Your task to perform on an android device: Turn off the flashlight Image 0: 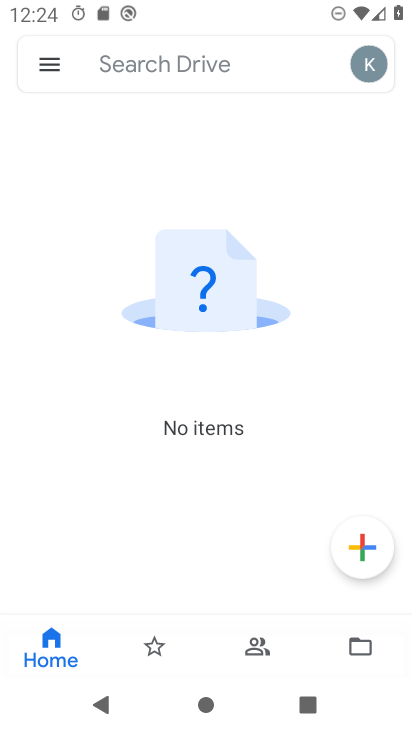
Step 0: press home button
Your task to perform on an android device: Turn off the flashlight Image 1: 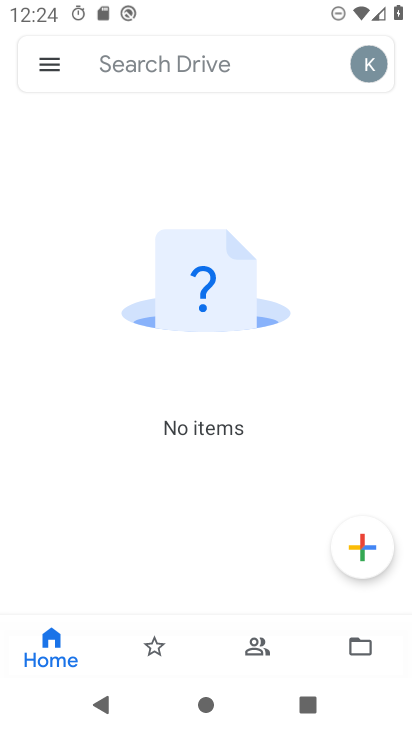
Step 1: press home button
Your task to perform on an android device: Turn off the flashlight Image 2: 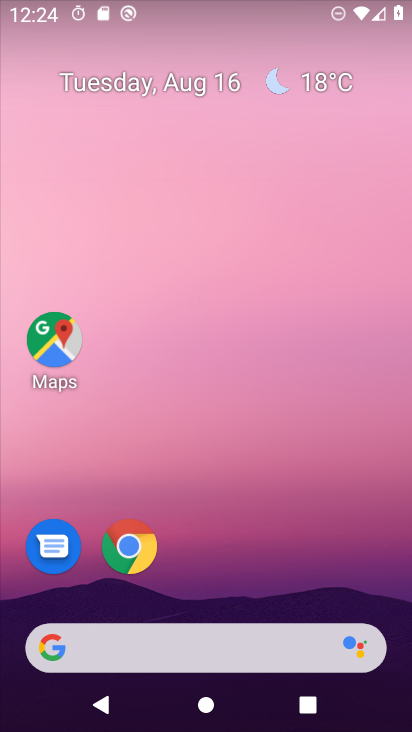
Step 2: drag from (178, 375) to (181, 8)
Your task to perform on an android device: Turn off the flashlight Image 3: 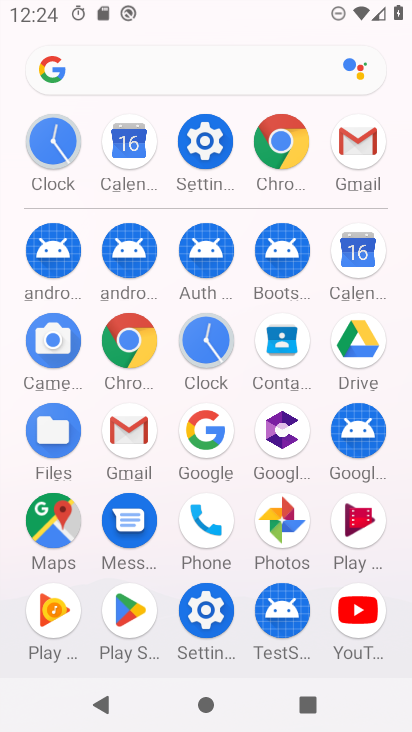
Step 3: click (199, 146)
Your task to perform on an android device: Turn off the flashlight Image 4: 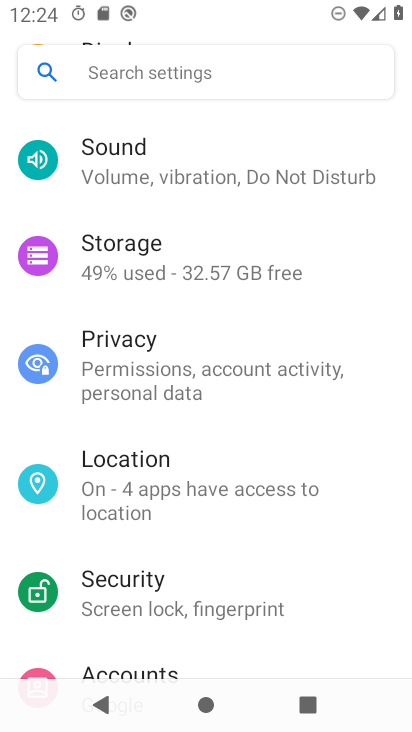
Step 4: task complete